Your task to perform on an android device: move a message to another label in the gmail app Image 0: 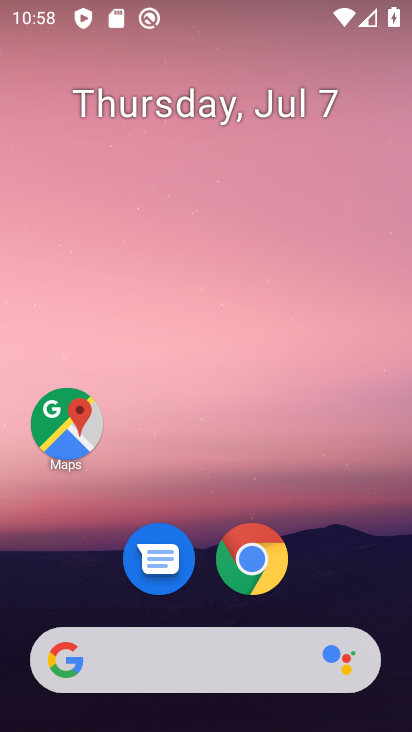
Step 0: drag from (372, 578) to (362, 191)
Your task to perform on an android device: move a message to another label in the gmail app Image 1: 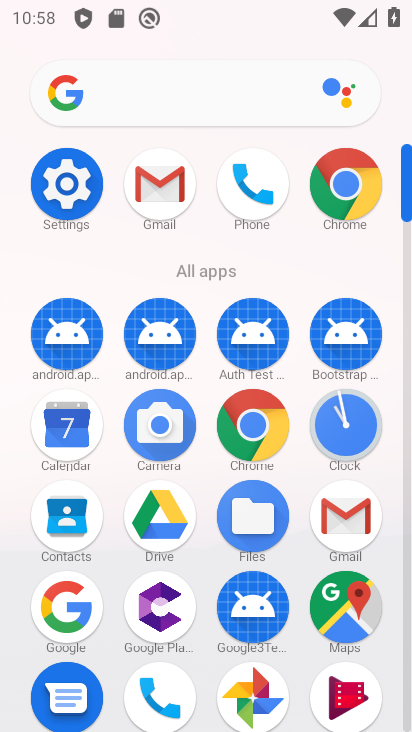
Step 1: click (364, 518)
Your task to perform on an android device: move a message to another label in the gmail app Image 2: 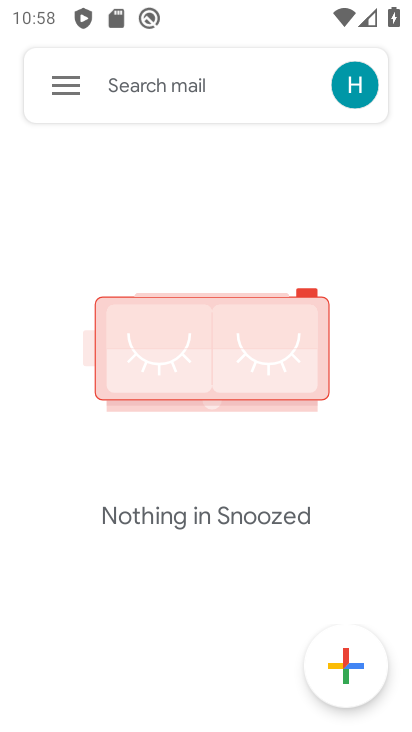
Step 2: click (70, 79)
Your task to perform on an android device: move a message to another label in the gmail app Image 3: 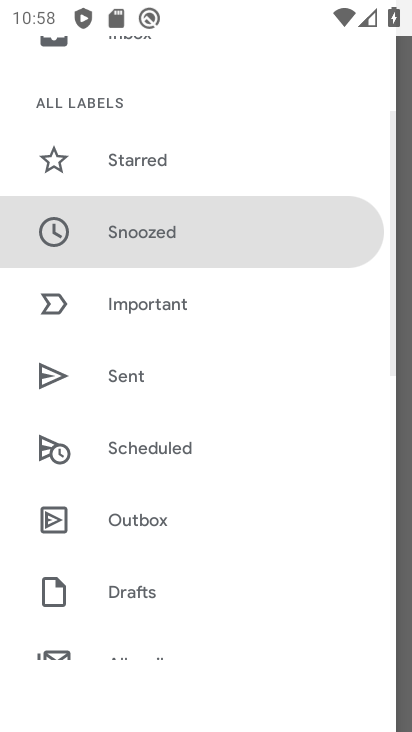
Step 3: drag from (286, 167) to (297, 363)
Your task to perform on an android device: move a message to another label in the gmail app Image 4: 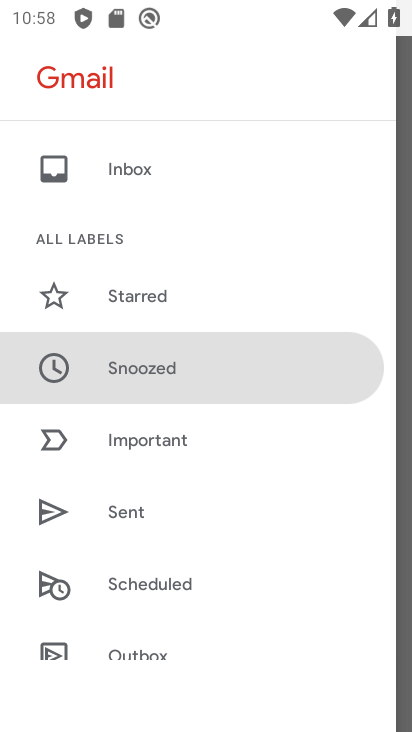
Step 4: drag from (283, 221) to (286, 389)
Your task to perform on an android device: move a message to another label in the gmail app Image 5: 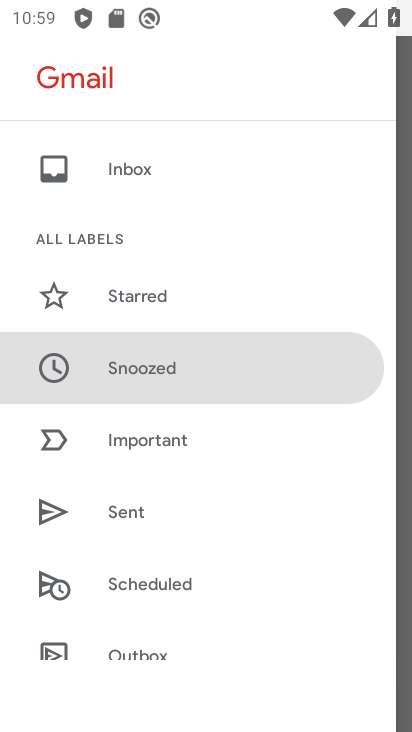
Step 5: click (137, 182)
Your task to perform on an android device: move a message to another label in the gmail app Image 6: 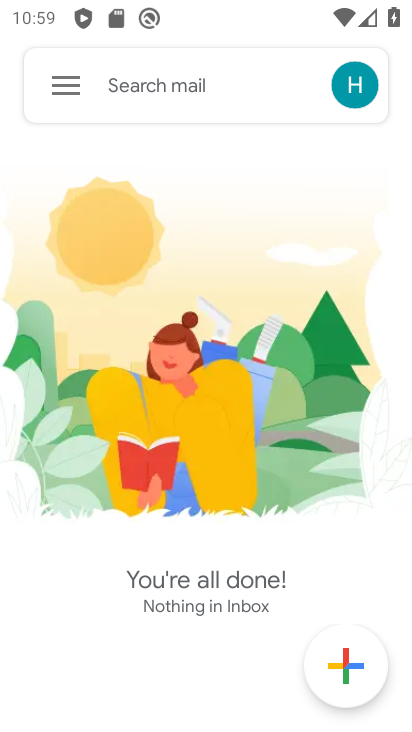
Step 6: task complete